Your task to perform on an android device: Open Google Chrome and click the shortcut for Amazon.com Image 0: 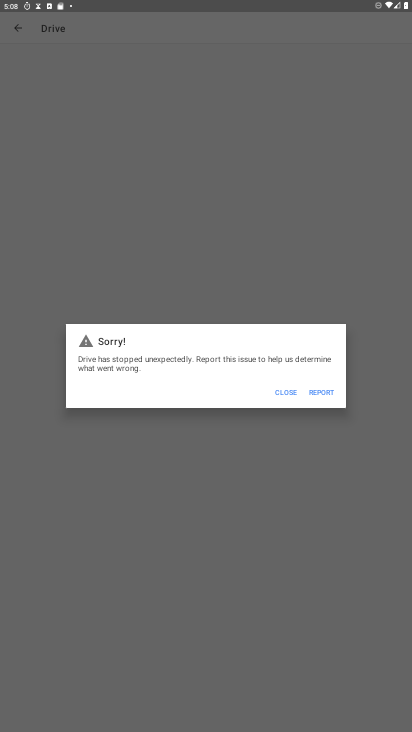
Step 0: press home button
Your task to perform on an android device: Open Google Chrome and click the shortcut for Amazon.com Image 1: 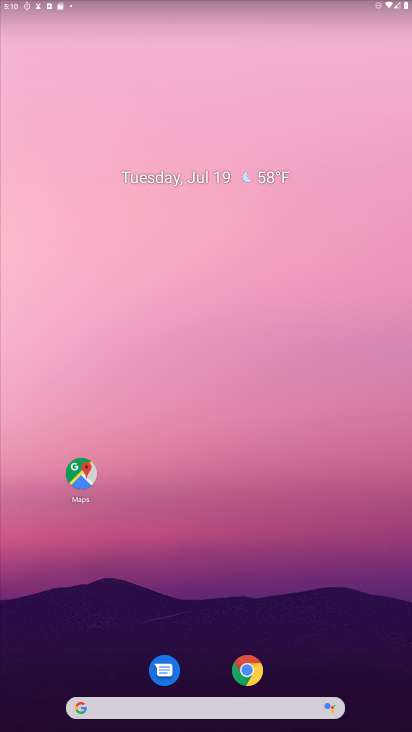
Step 1: drag from (195, 711) to (76, 145)
Your task to perform on an android device: Open Google Chrome and click the shortcut for Amazon.com Image 2: 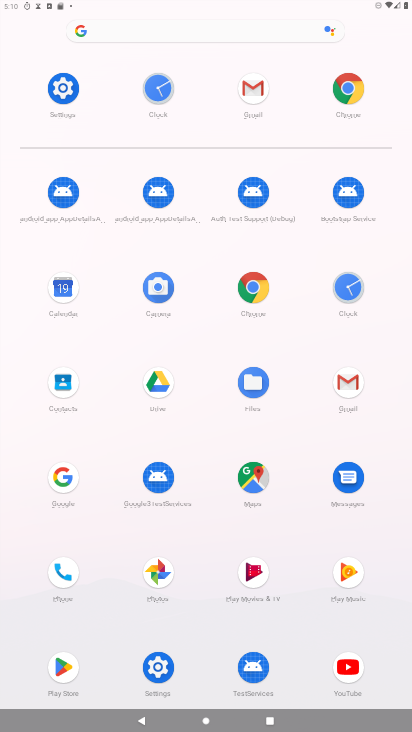
Step 2: click (248, 278)
Your task to perform on an android device: Open Google Chrome and click the shortcut for Amazon.com Image 3: 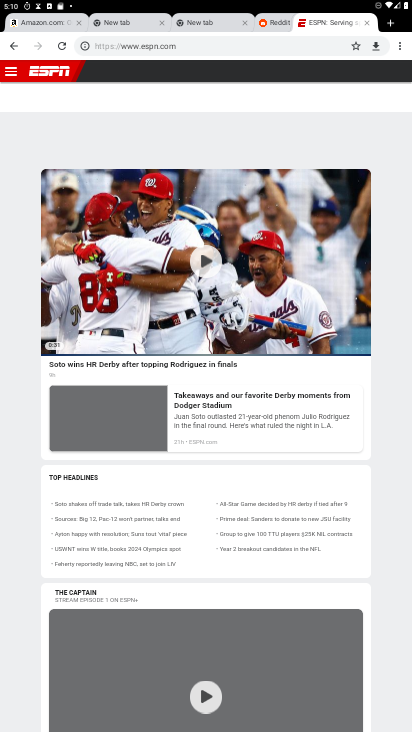
Step 3: drag from (401, 39) to (344, 47)
Your task to perform on an android device: Open Google Chrome and click the shortcut for Amazon.com Image 4: 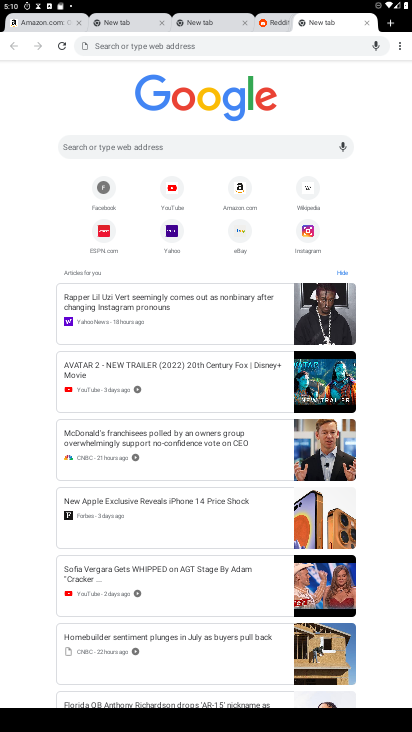
Step 4: click (245, 186)
Your task to perform on an android device: Open Google Chrome and click the shortcut for Amazon.com Image 5: 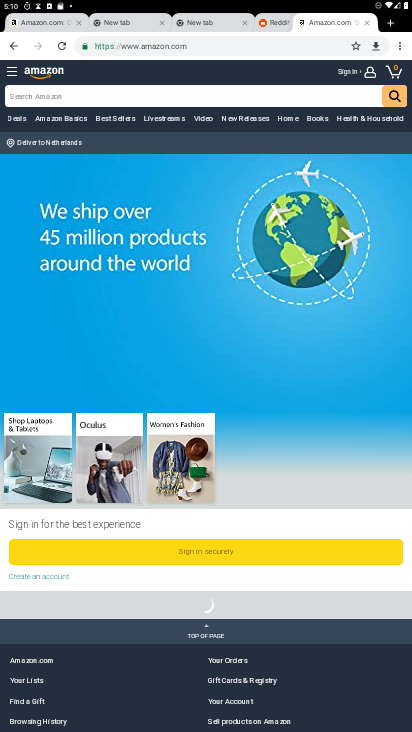
Step 5: task complete